Your task to perform on an android device: open chrome privacy settings Image 0: 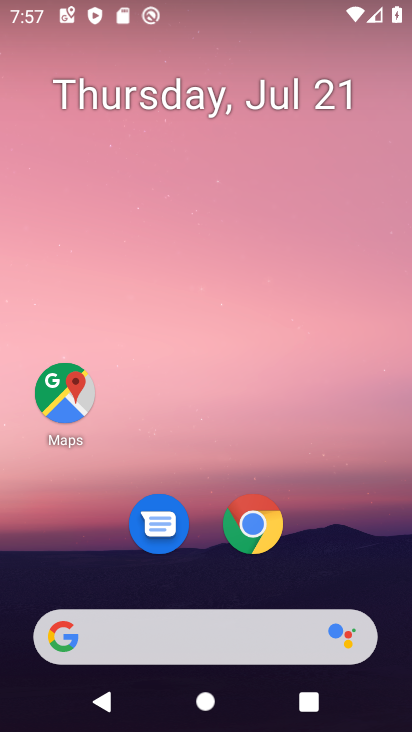
Step 0: press home button
Your task to perform on an android device: open chrome privacy settings Image 1: 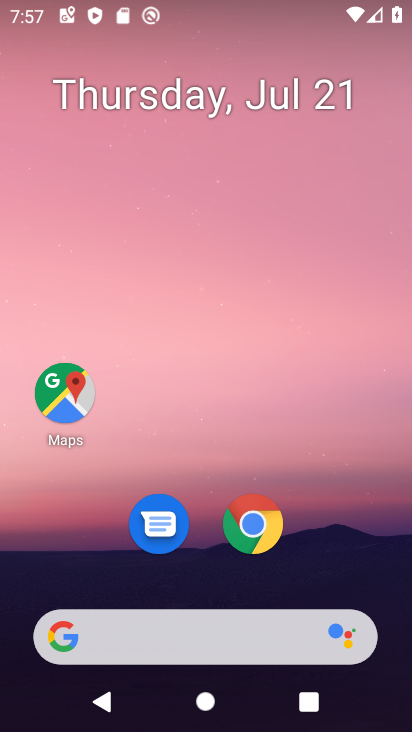
Step 1: click (259, 537)
Your task to perform on an android device: open chrome privacy settings Image 2: 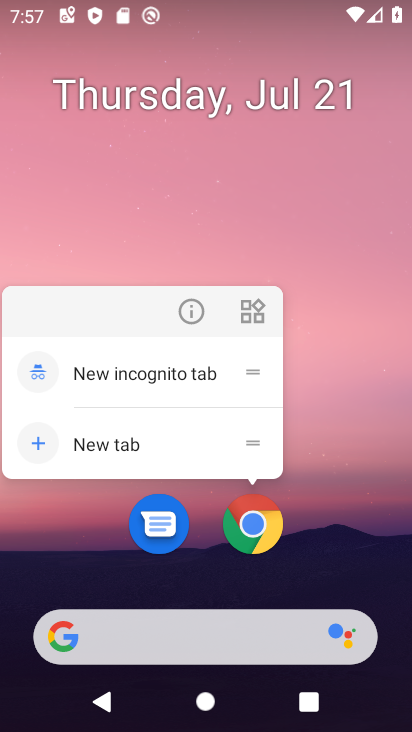
Step 2: click (255, 531)
Your task to perform on an android device: open chrome privacy settings Image 3: 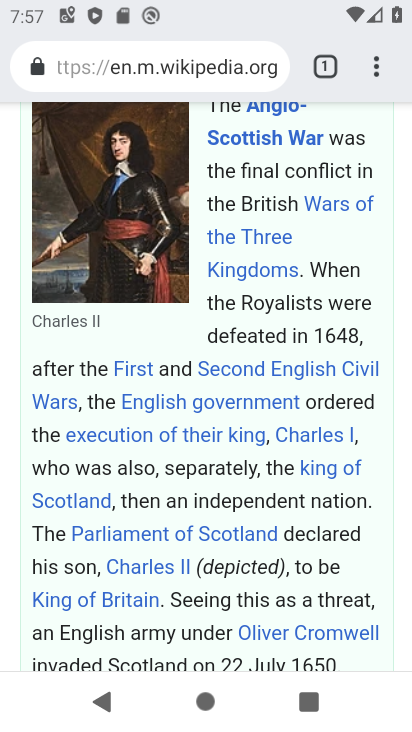
Step 3: drag from (377, 70) to (195, 518)
Your task to perform on an android device: open chrome privacy settings Image 4: 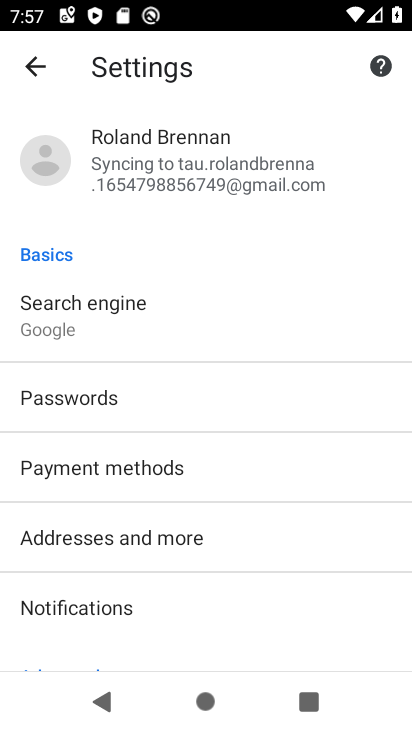
Step 4: drag from (264, 616) to (336, 143)
Your task to perform on an android device: open chrome privacy settings Image 5: 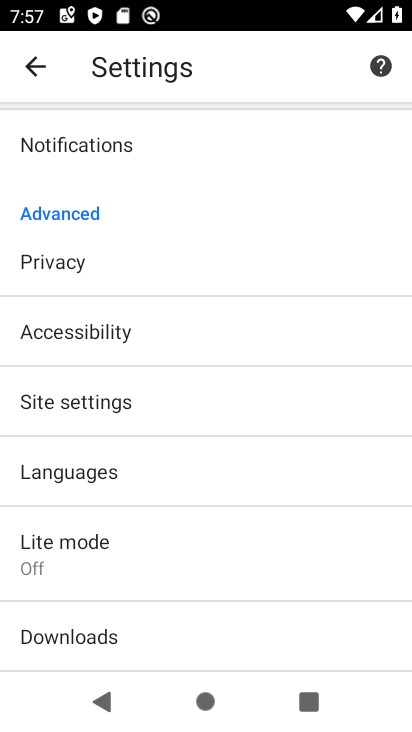
Step 5: click (60, 267)
Your task to perform on an android device: open chrome privacy settings Image 6: 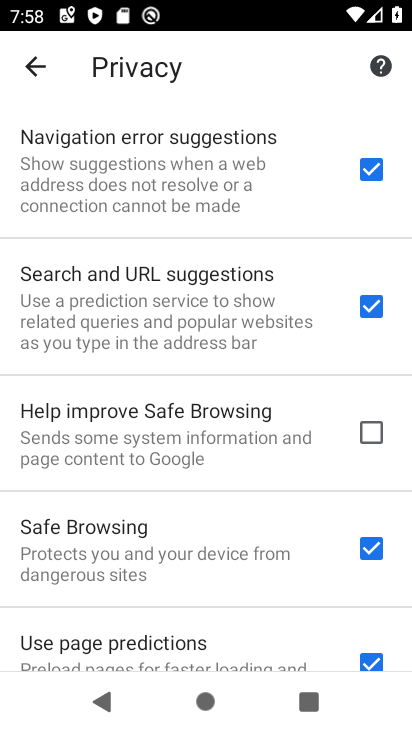
Step 6: task complete